Your task to perform on an android device: Open calendar and show me the fourth week of next month Image 0: 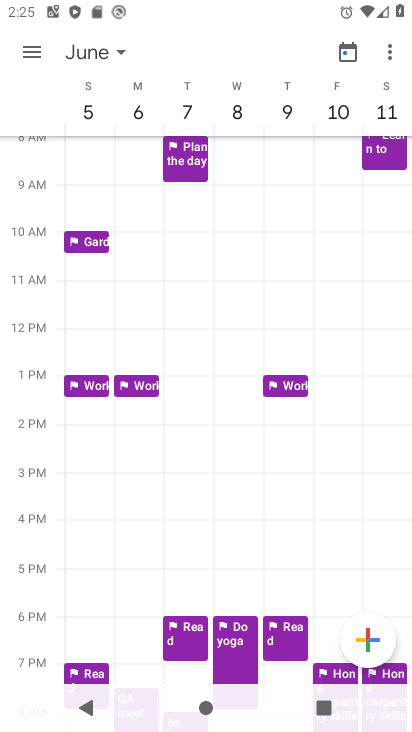
Step 0: drag from (330, 115) to (3, 138)
Your task to perform on an android device: Open calendar and show me the fourth week of next month Image 1: 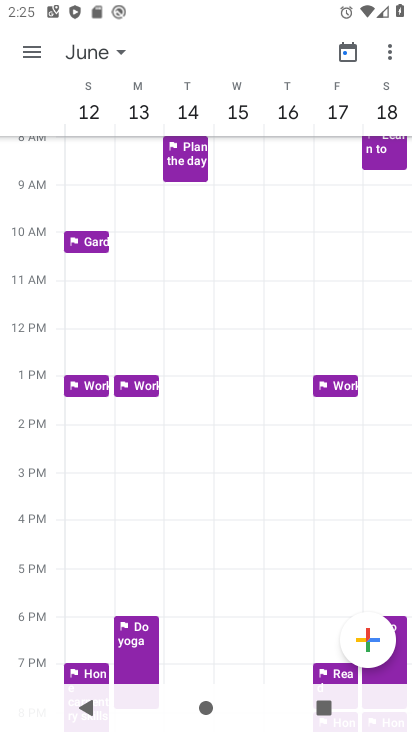
Step 1: task complete